Your task to perform on an android device: install app "Gmail" Image 0: 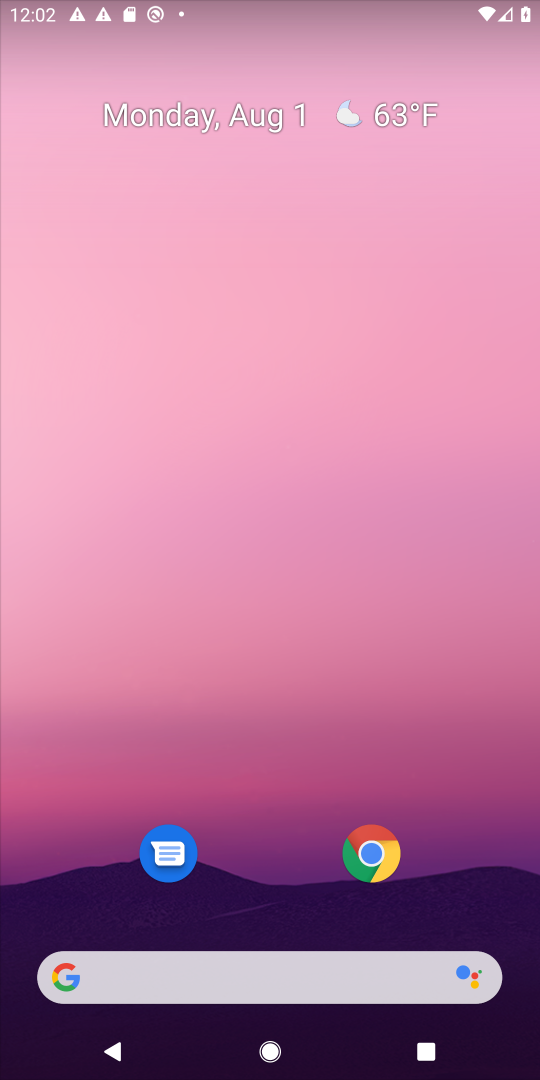
Step 0: drag from (314, 1069) to (314, 77)
Your task to perform on an android device: install app "Gmail" Image 1: 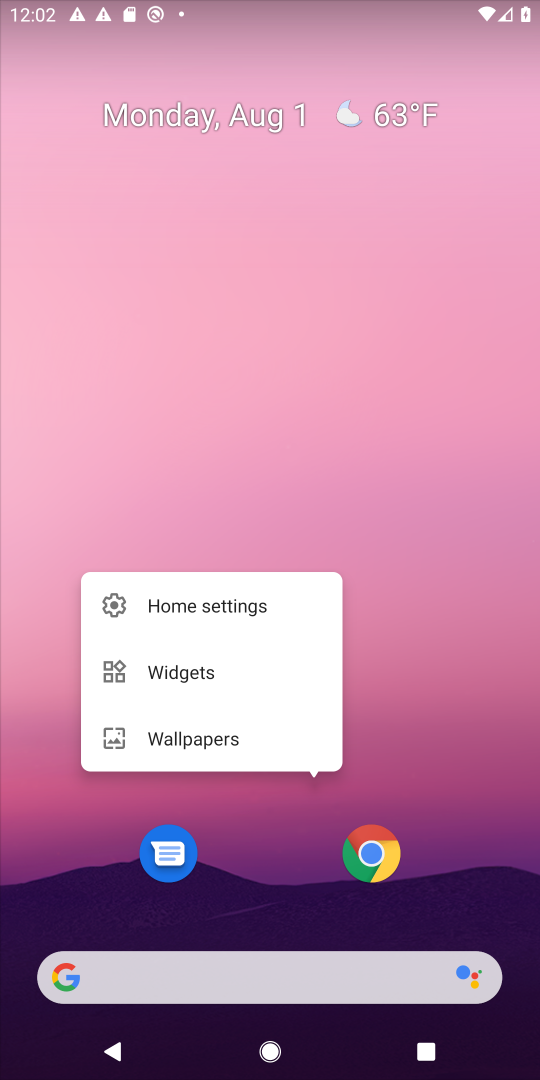
Step 1: click (267, 432)
Your task to perform on an android device: install app "Gmail" Image 2: 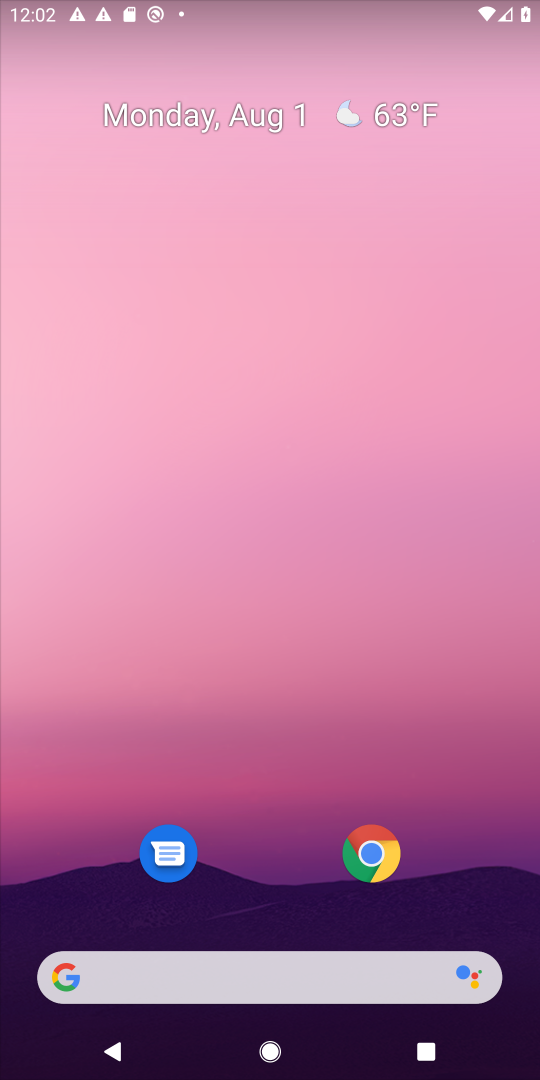
Step 2: drag from (314, 1055) to (244, 93)
Your task to perform on an android device: install app "Gmail" Image 3: 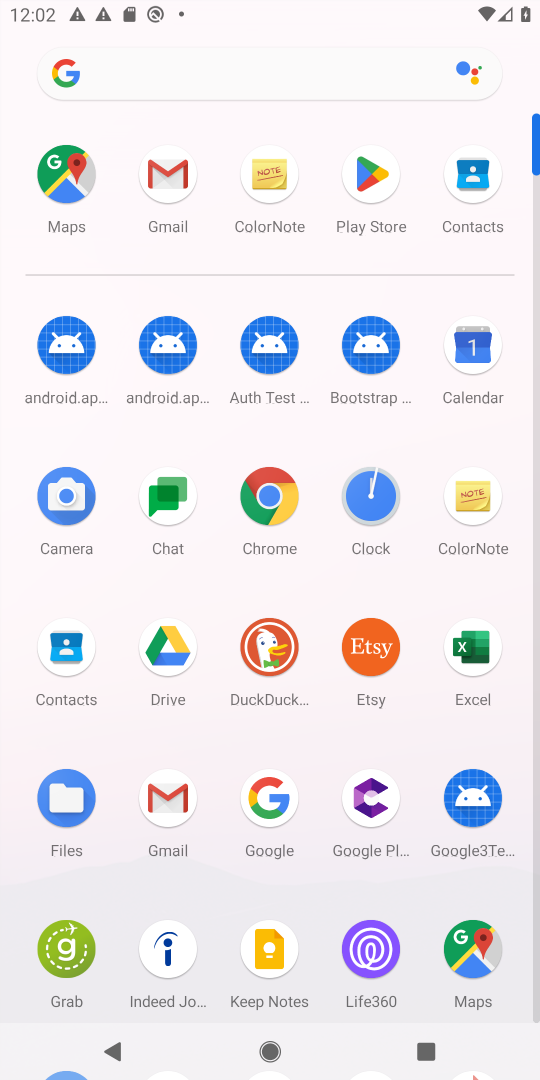
Step 3: click (375, 171)
Your task to perform on an android device: install app "Gmail" Image 4: 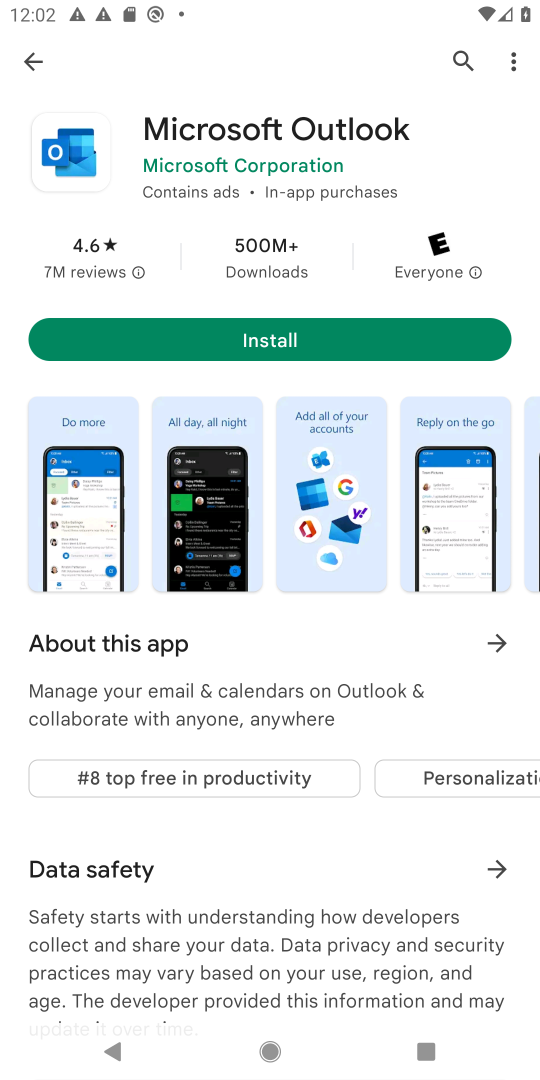
Step 4: click (463, 50)
Your task to perform on an android device: install app "Gmail" Image 5: 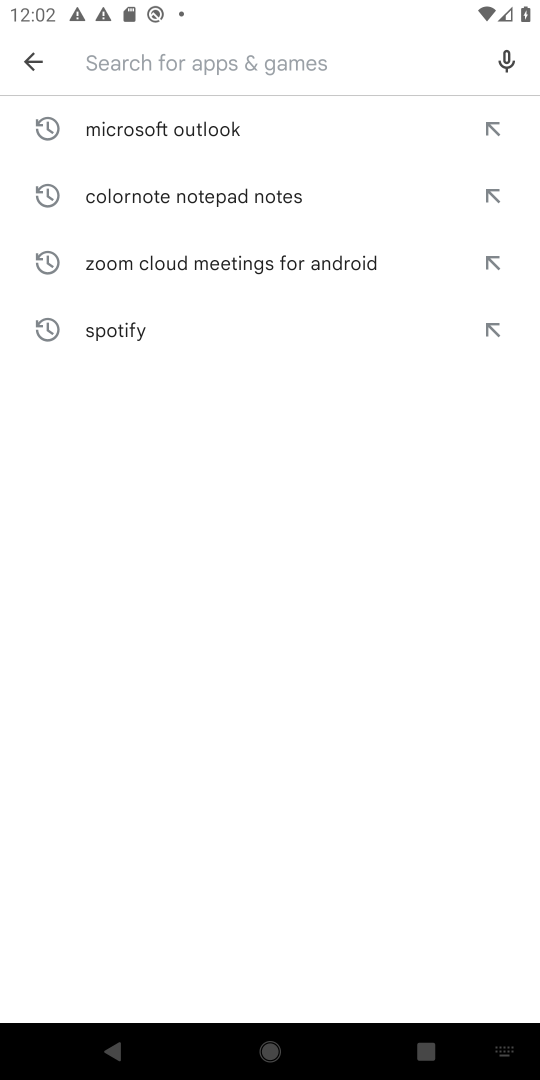
Step 5: type "Gmail"
Your task to perform on an android device: install app "Gmail" Image 6: 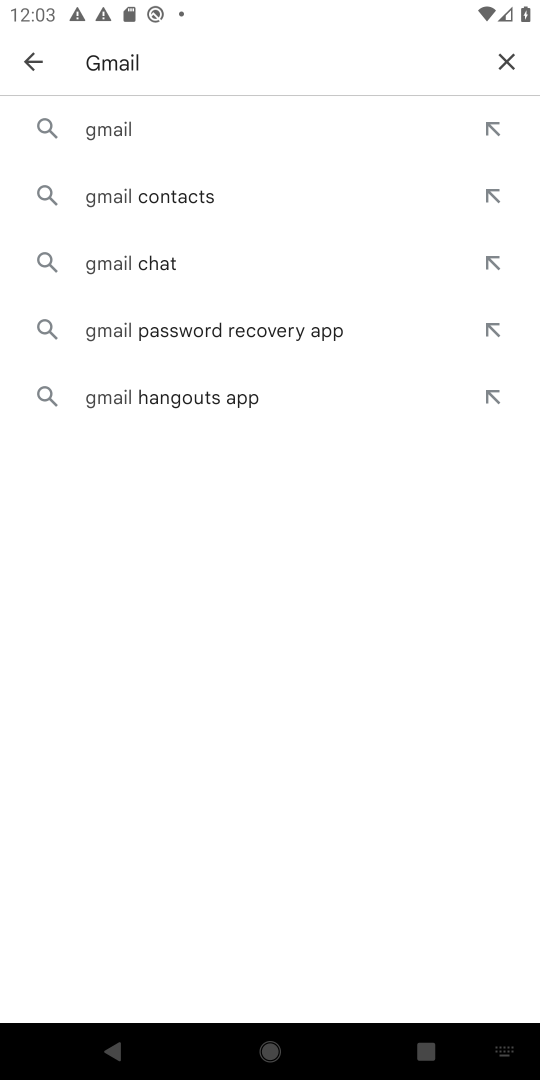
Step 6: click (107, 127)
Your task to perform on an android device: install app "Gmail" Image 7: 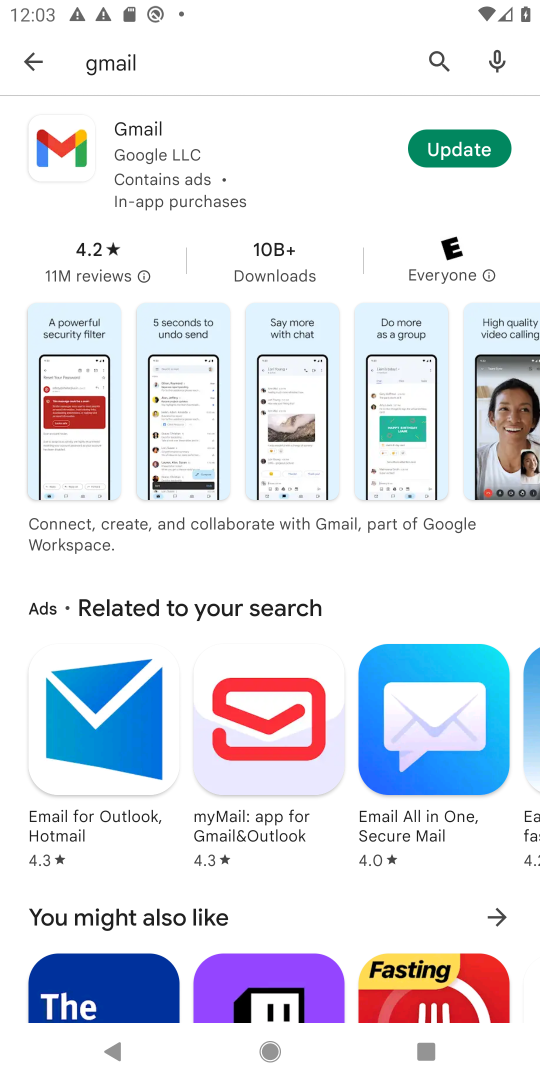
Step 7: task complete